Your task to perform on an android device: Open the Play Movies app and select the watchlist tab. Image 0: 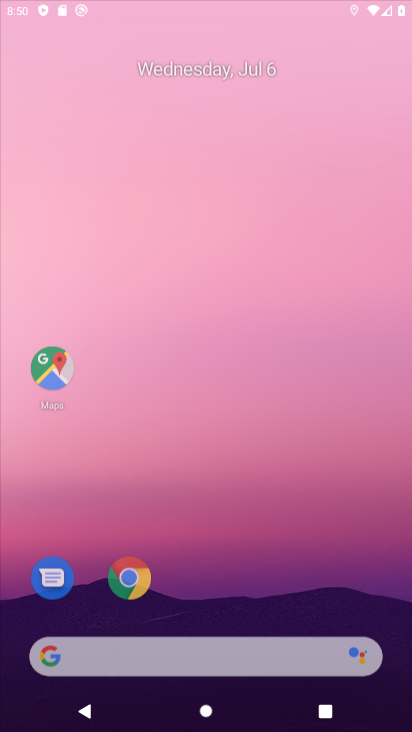
Step 0: click (280, 353)
Your task to perform on an android device: Open the Play Movies app and select the watchlist tab. Image 1: 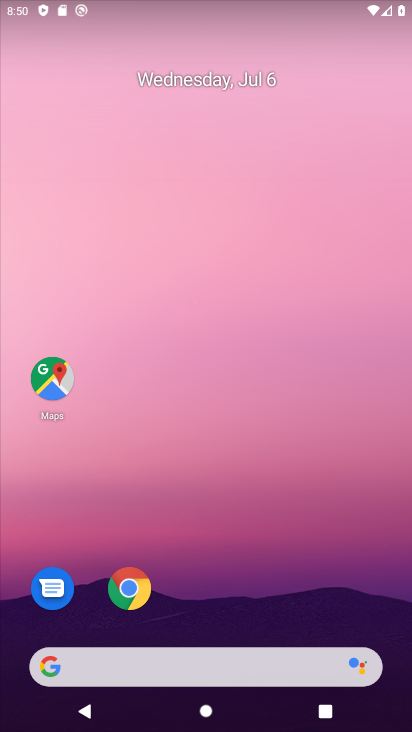
Step 1: drag from (185, 599) to (241, 302)
Your task to perform on an android device: Open the Play Movies app and select the watchlist tab. Image 2: 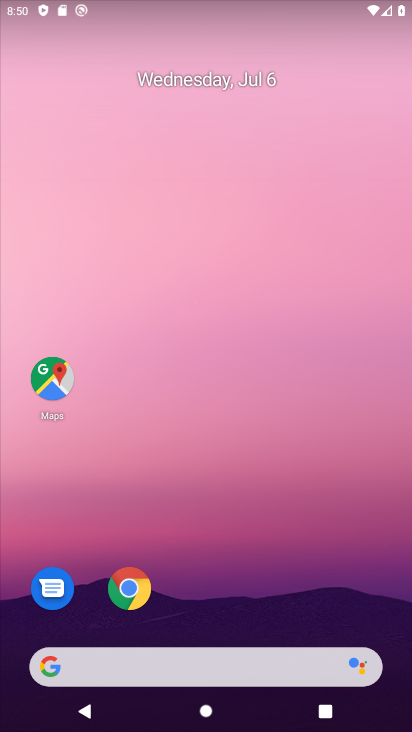
Step 2: drag from (182, 597) to (155, 170)
Your task to perform on an android device: Open the Play Movies app and select the watchlist tab. Image 3: 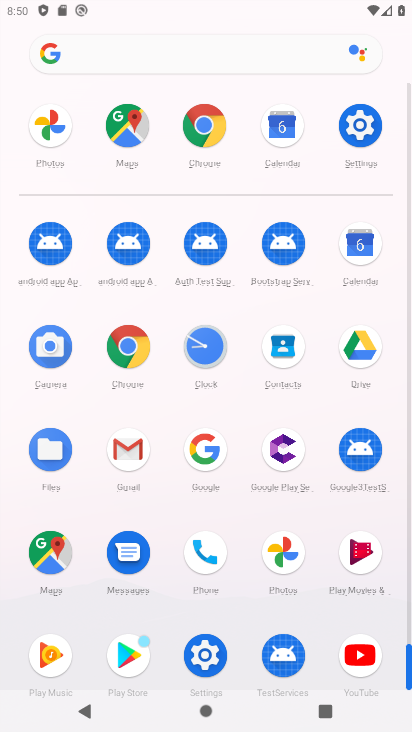
Step 3: click (348, 545)
Your task to perform on an android device: Open the Play Movies app and select the watchlist tab. Image 4: 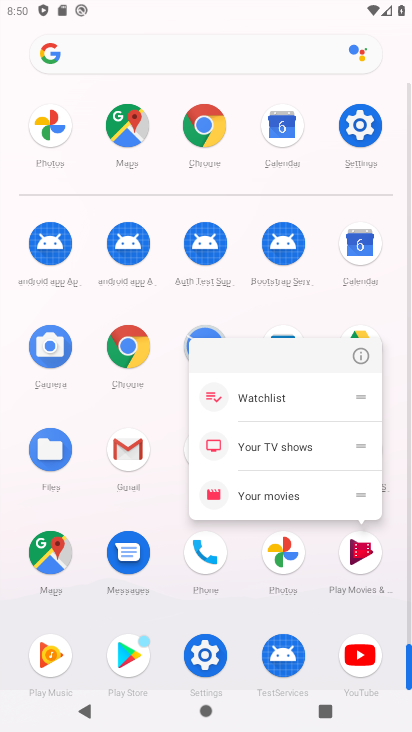
Step 4: click (356, 356)
Your task to perform on an android device: Open the Play Movies app and select the watchlist tab. Image 5: 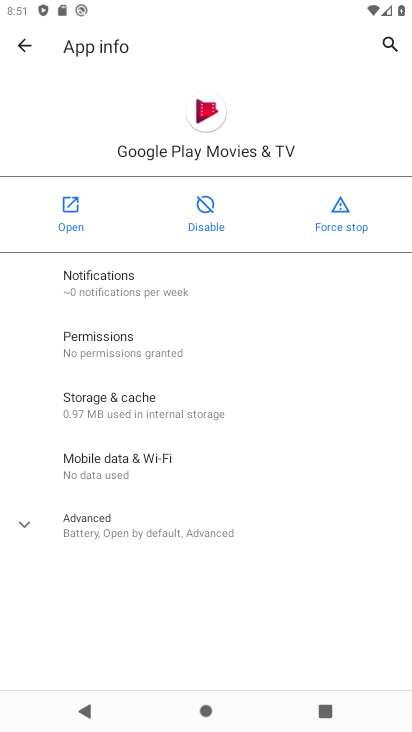
Step 5: click (76, 217)
Your task to perform on an android device: Open the Play Movies app and select the watchlist tab. Image 6: 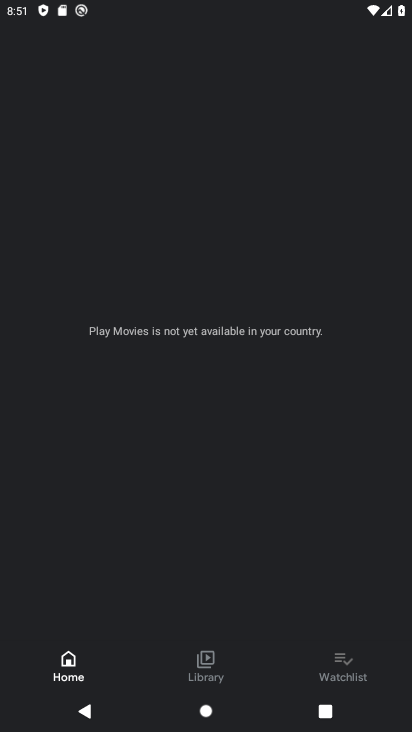
Step 6: click (210, 657)
Your task to perform on an android device: Open the Play Movies app and select the watchlist tab. Image 7: 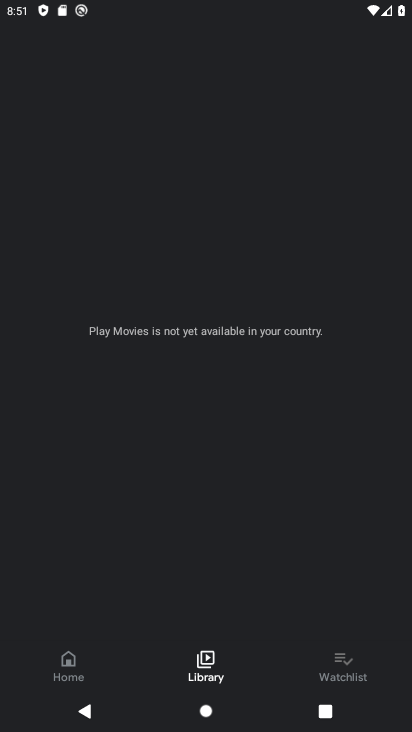
Step 7: click (356, 672)
Your task to perform on an android device: Open the Play Movies app and select the watchlist tab. Image 8: 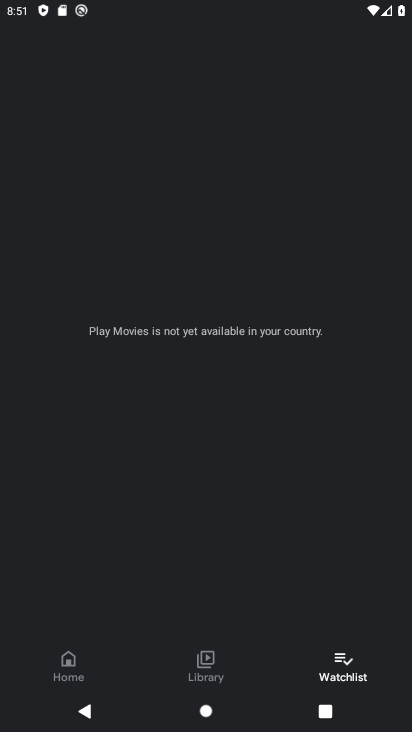
Step 8: drag from (275, 537) to (275, 316)
Your task to perform on an android device: Open the Play Movies app and select the watchlist tab. Image 9: 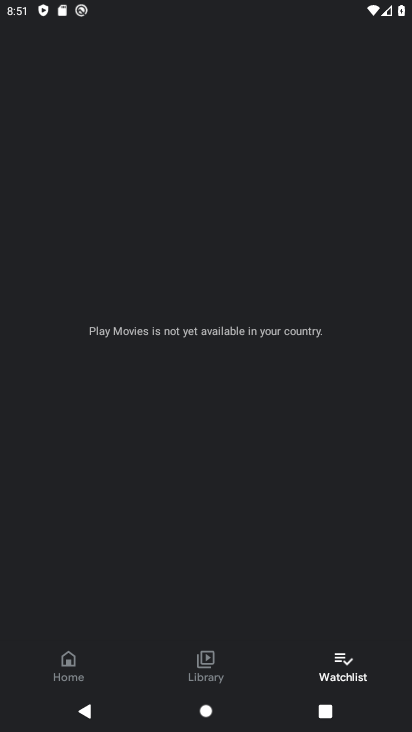
Step 9: click (341, 655)
Your task to perform on an android device: Open the Play Movies app and select the watchlist tab. Image 10: 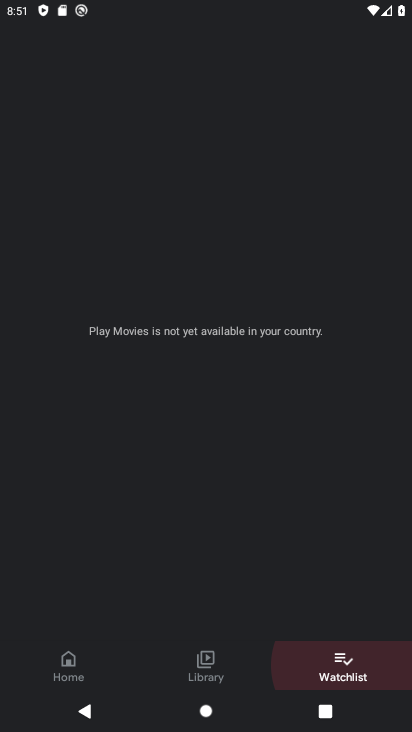
Step 10: drag from (321, 456) to (333, 185)
Your task to perform on an android device: Open the Play Movies app and select the watchlist tab. Image 11: 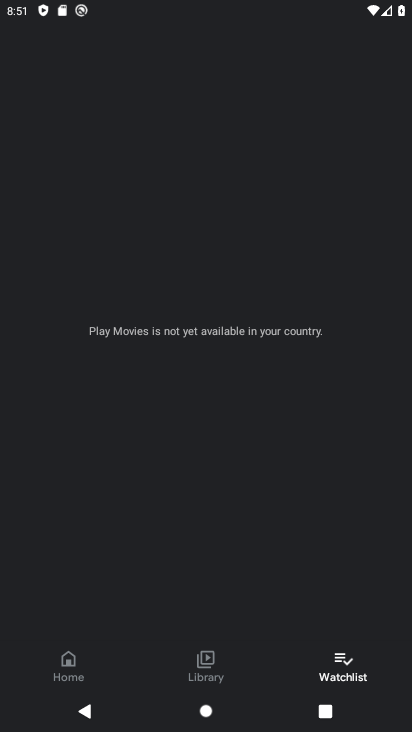
Step 11: drag from (231, 530) to (258, 349)
Your task to perform on an android device: Open the Play Movies app and select the watchlist tab. Image 12: 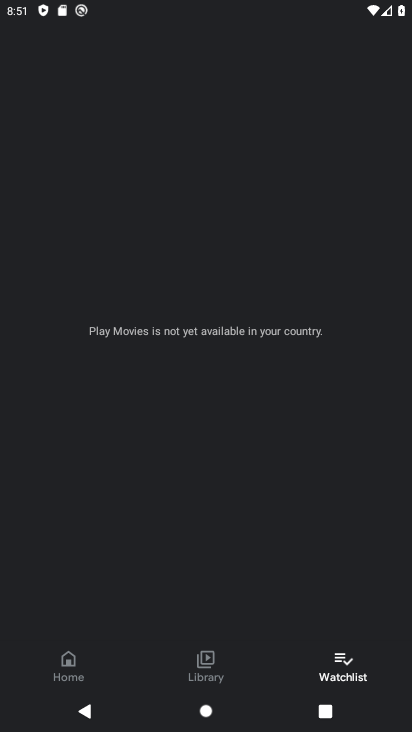
Step 12: click (344, 665)
Your task to perform on an android device: Open the Play Movies app and select the watchlist tab. Image 13: 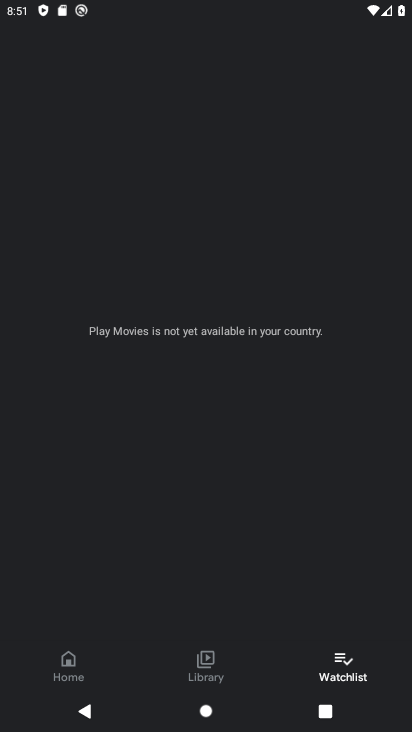
Step 13: click (344, 665)
Your task to perform on an android device: Open the Play Movies app and select the watchlist tab. Image 14: 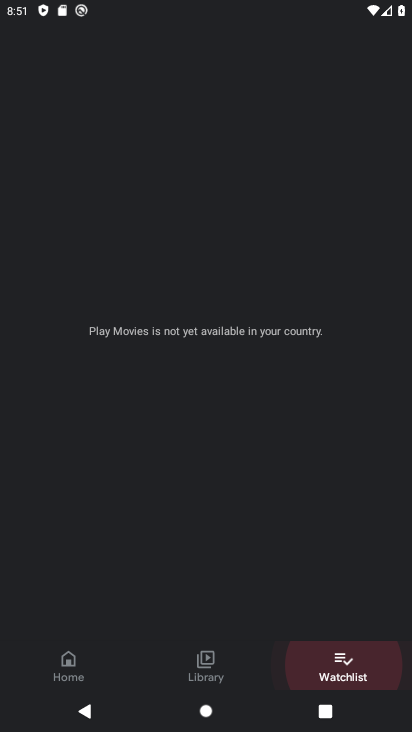
Step 14: click (343, 664)
Your task to perform on an android device: Open the Play Movies app and select the watchlist tab. Image 15: 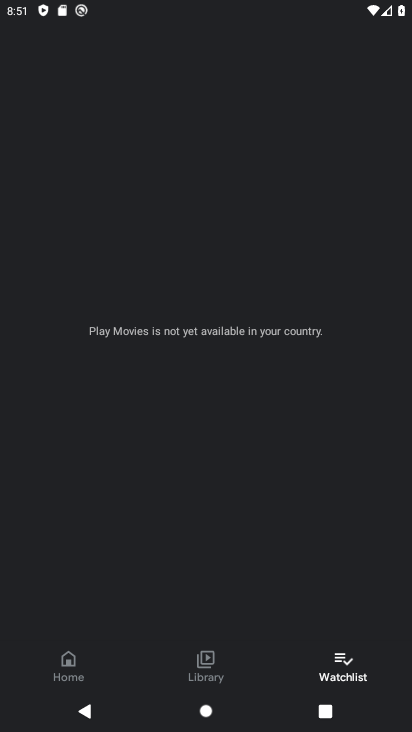
Step 15: task complete